Your task to perform on an android device: stop showing notifications on the lock screen Image 0: 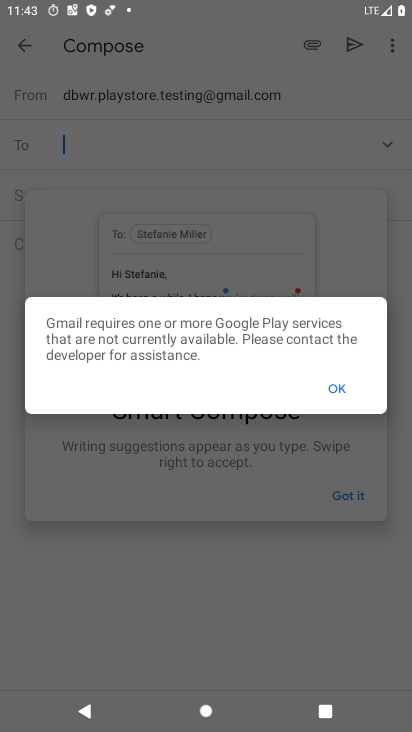
Step 0: press home button
Your task to perform on an android device: stop showing notifications on the lock screen Image 1: 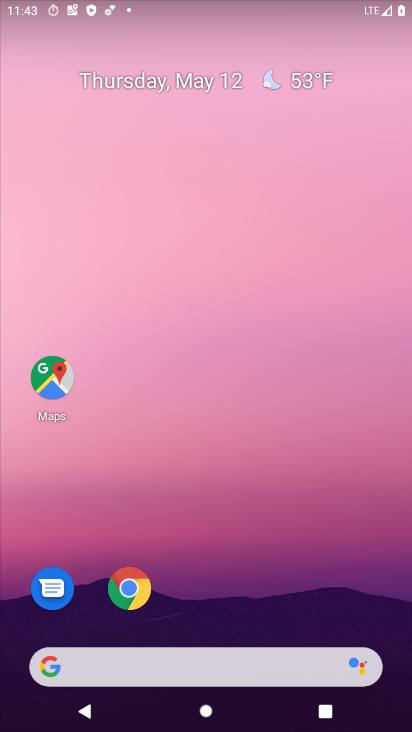
Step 1: drag from (291, 554) to (254, 88)
Your task to perform on an android device: stop showing notifications on the lock screen Image 2: 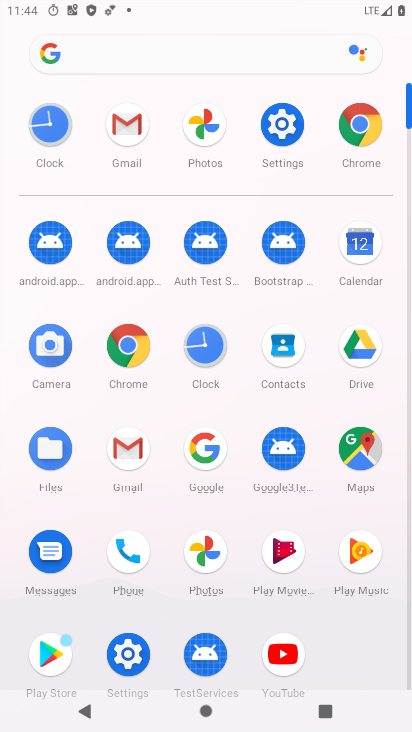
Step 2: click (284, 131)
Your task to perform on an android device: stop showing notifications on the lock screen Image 3: 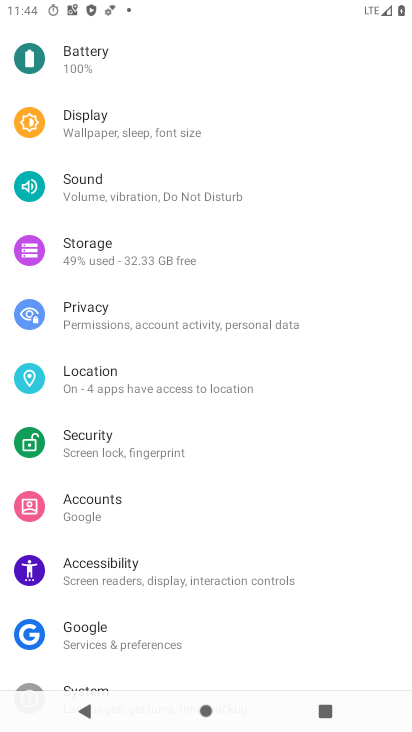
Step 3: drag from (197, 220) to (157, 603)
Your task to perform on an android device: stop showing notifications on the lock screen Image 4: 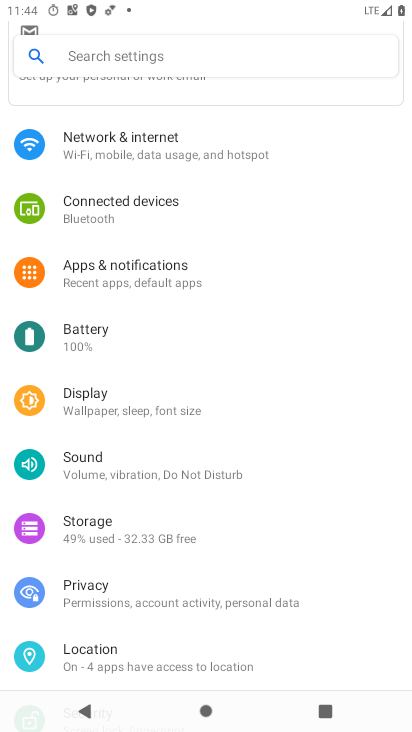
Step 4: click (132, 280)
Your task to perform on an android device: stop showing notifications on the lock screen Image 5: 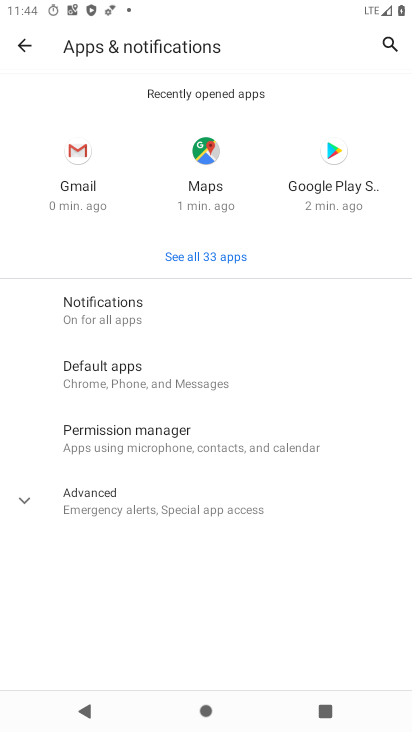
Step 5: click (144, 316)
Your task to perform on an android device: stop showing notifications on the lock screen Image 6: 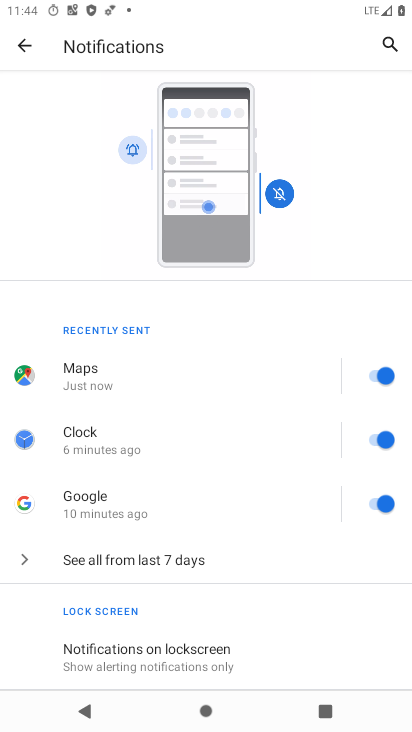
Step 6: click (184, 645)
Your task to perform on an android device: stop showing notifications on the lock screen Image 7: 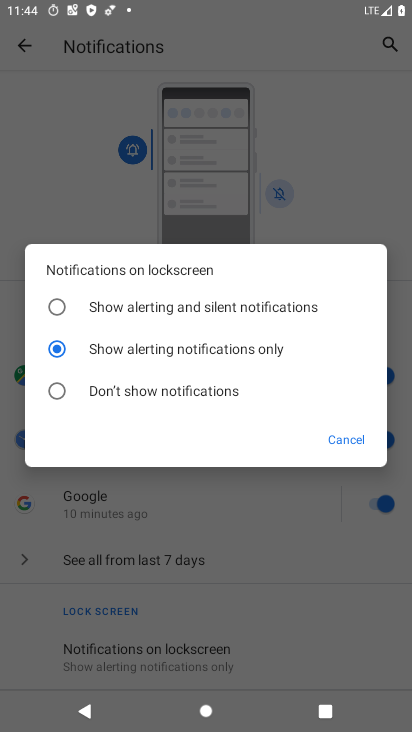
Step 7: click (165, 388)
Your task to perform on an android device: stop showing notifications on the lock screen Image 8: 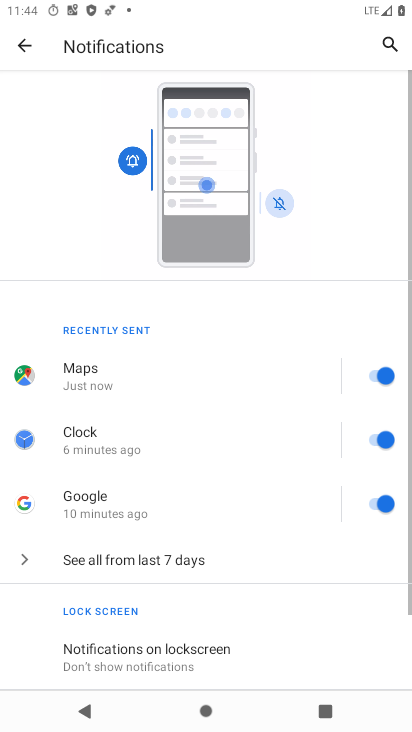
Step 8: task complete